Your task to perform on an android device: Open Youtube and go to "Your channel" Image 0: 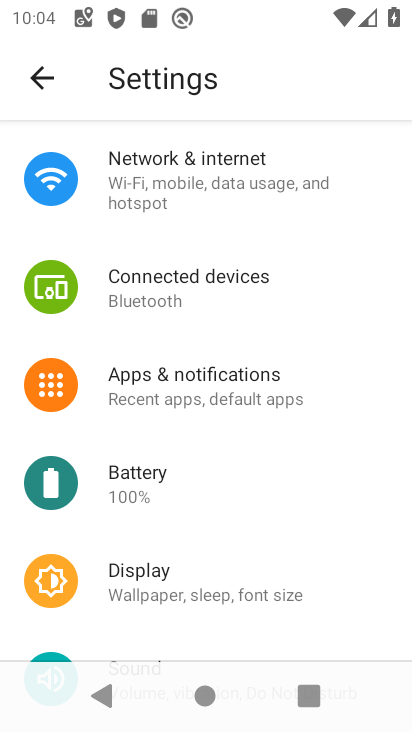
Step 0: press home button
Your task to perform on an android device: Open Youtube and go to "Your channel" Image 1: 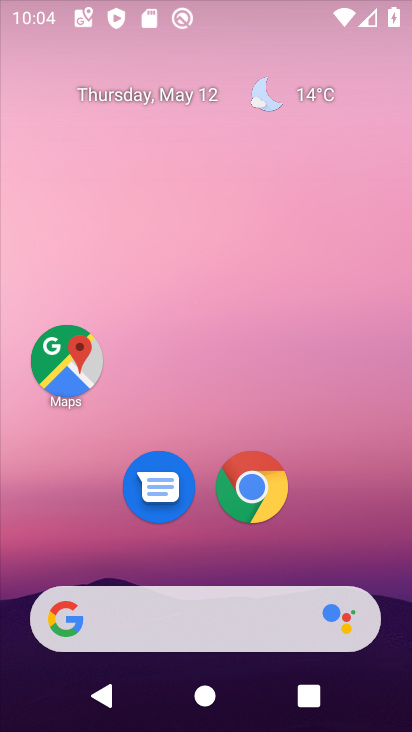
Step 1: drag from (64, 704) to (299, 187)
Your task to perform on an android device: Open Youtube and go to "Your channel" Image 2: 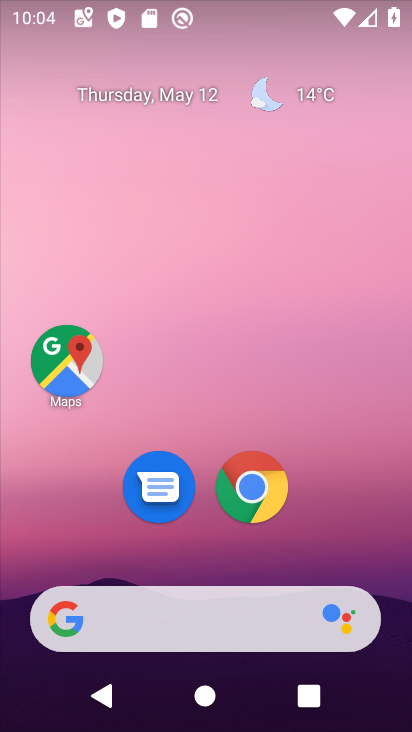
Step 2: drag from (13, 595) to (174, 113)
Your task to perform on an android device: Open Youtube and go to "Your channel" Image 3: 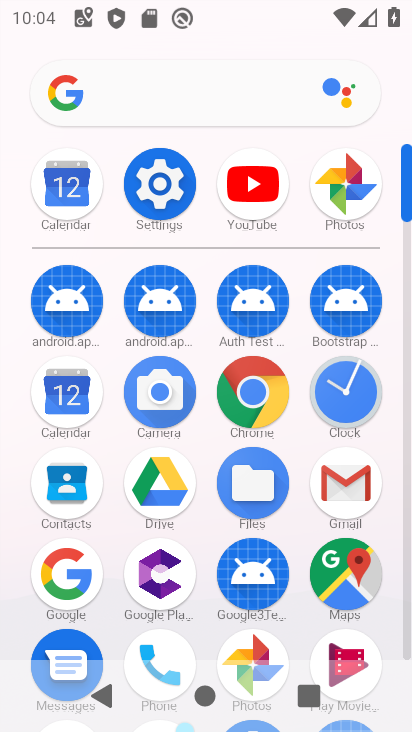
Step 3: click (254, 187)
Your task to perform on an android device: Open Youtube and go to "Your channel" Image 4: 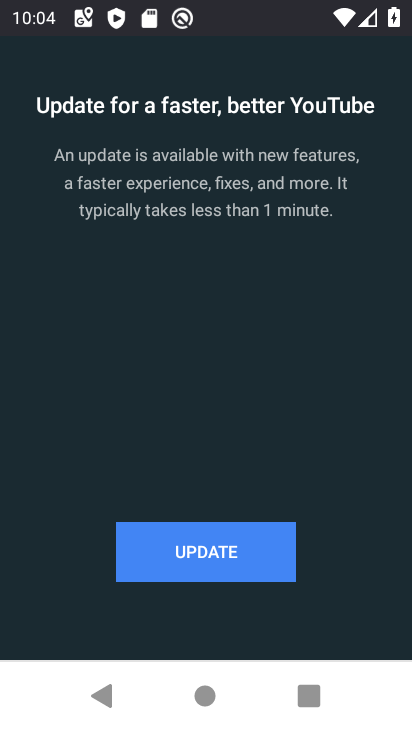
Step 4: task complete